Your task to perform on an android device: turn pop-ups off in chrome Image 0: 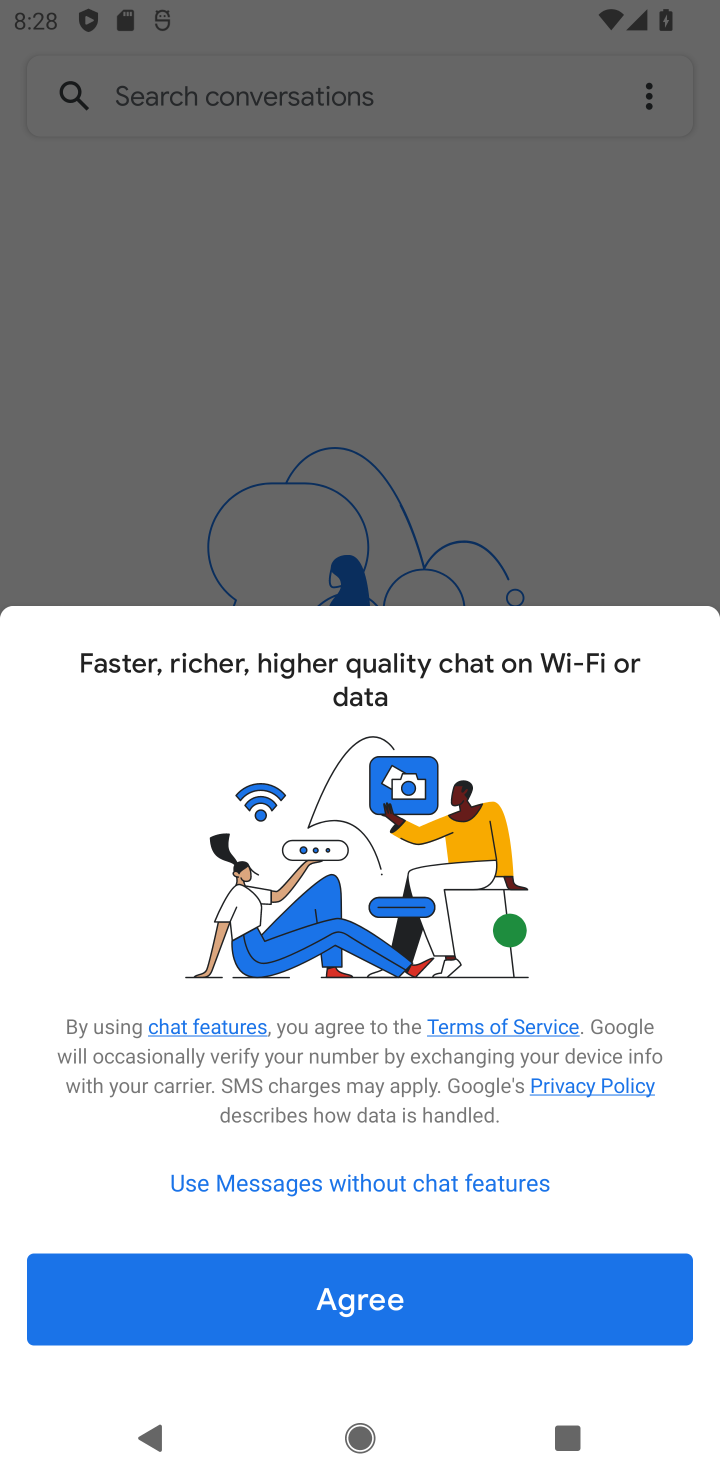
Step 0: press home button
Your task to perform on an android device: turn pop-ups off in chrome Image 1: 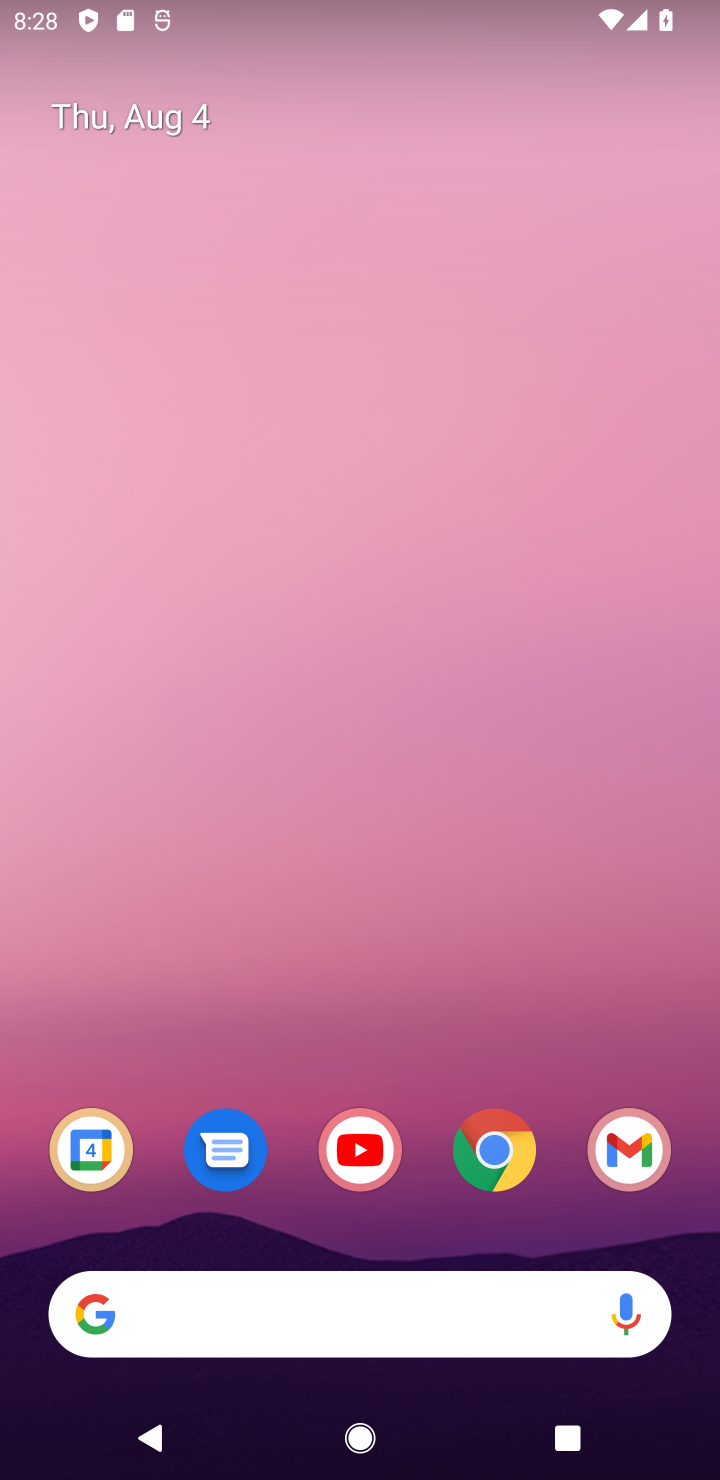
Step 1: click (470, 1158)
Your task to perform on an android device: turn pop-ups off in chrome Image 2: 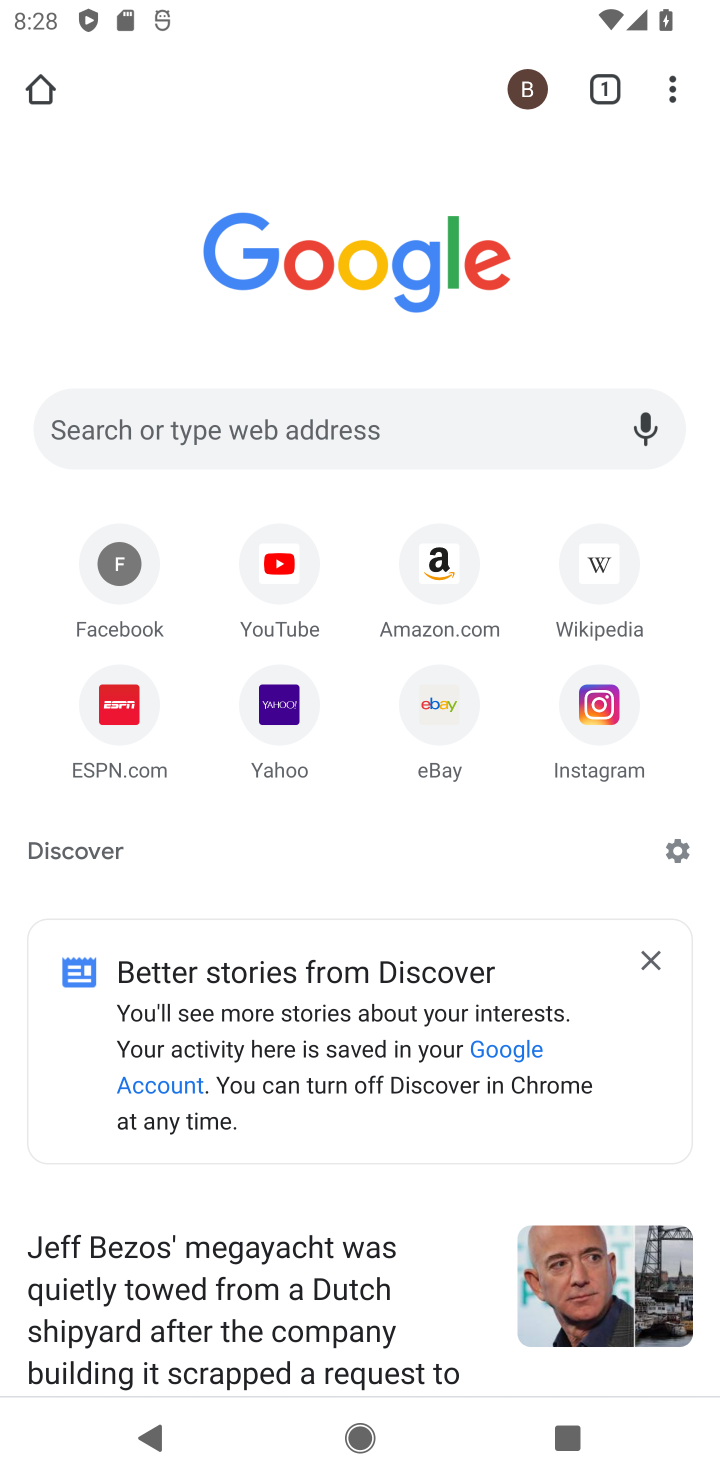
Step 2: drag from (668, 82) to (325, 784)
Your task to perform on an android device: turn pop-ups off in chrome Image 3: 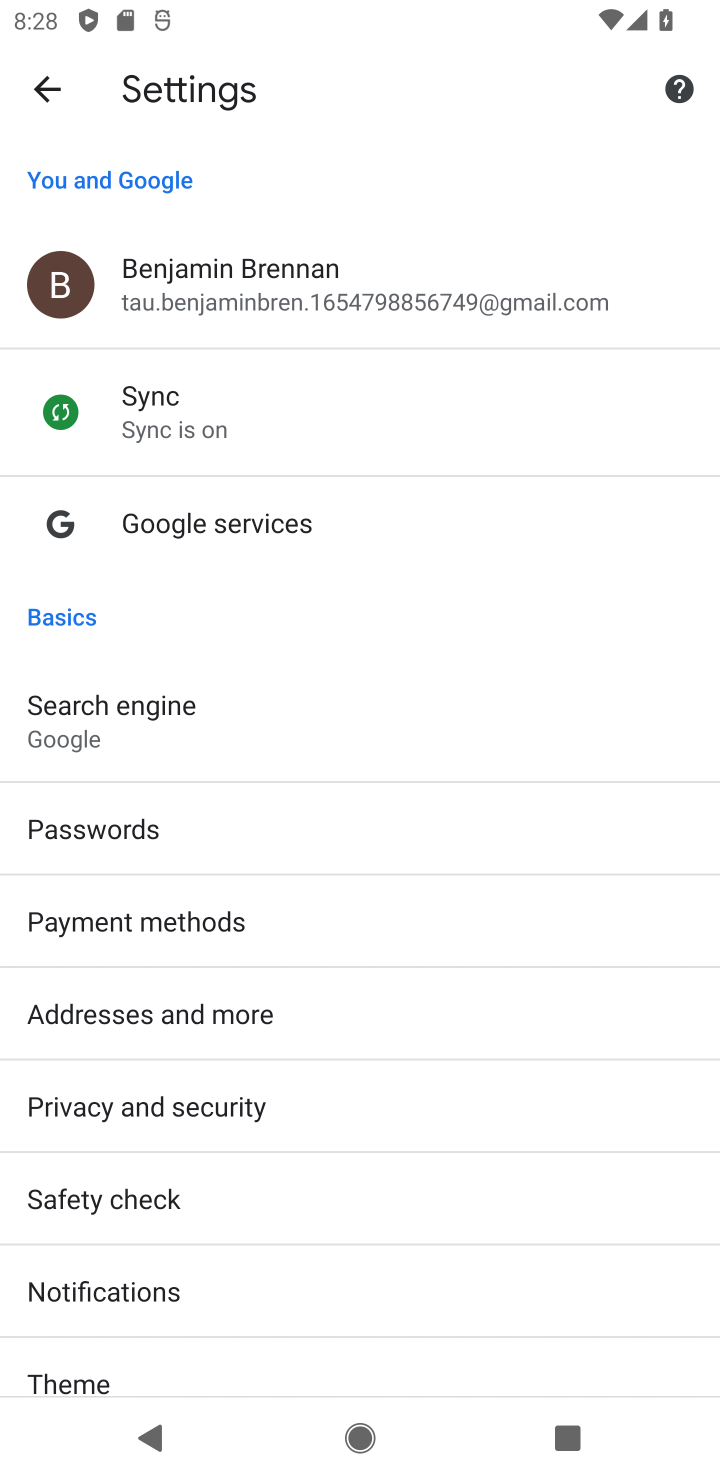
Step 3: drag from (121, 1286) to (97, 476)
Your task to perform on an android device: turn pop-ups off in chrome Image 4: 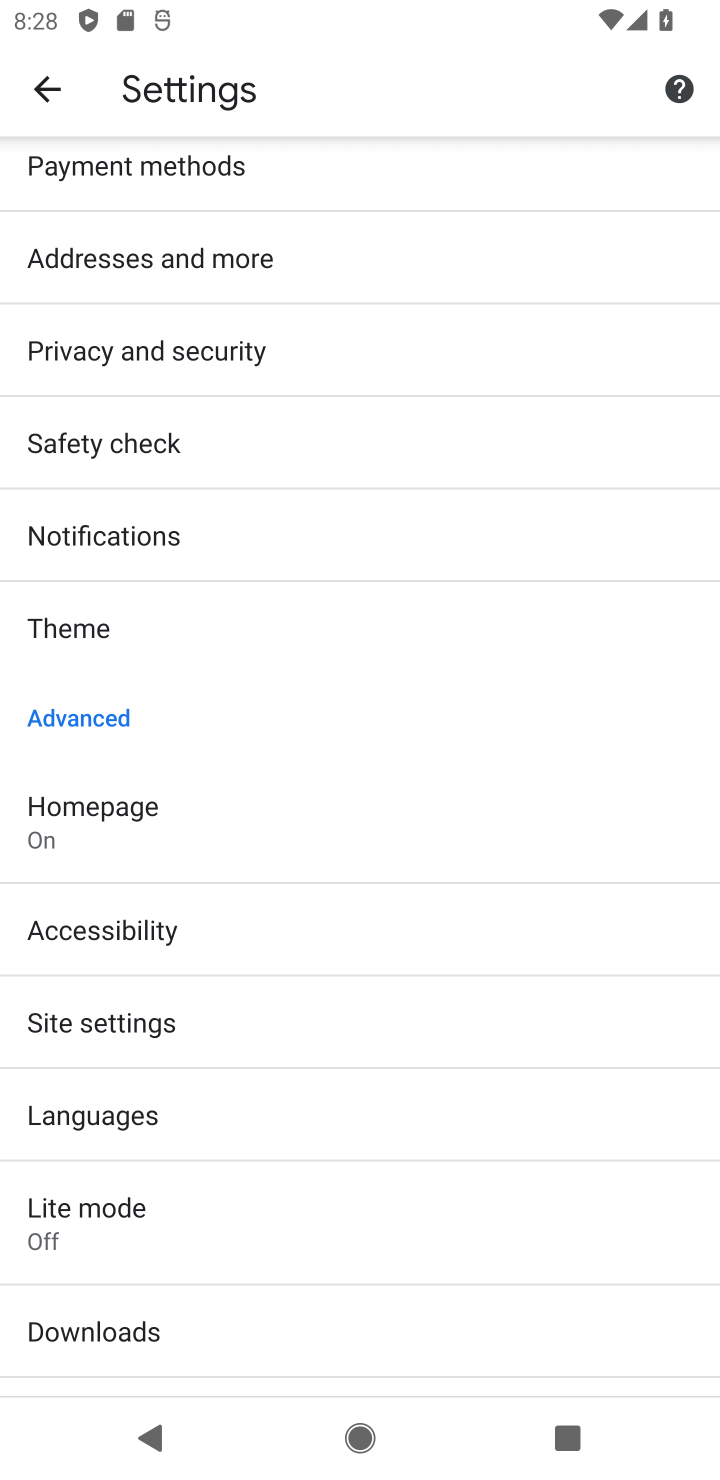
Step 4: click (87, 1031)
Your task to perform on an android device: turn pop-ups off in chrome Image 5: 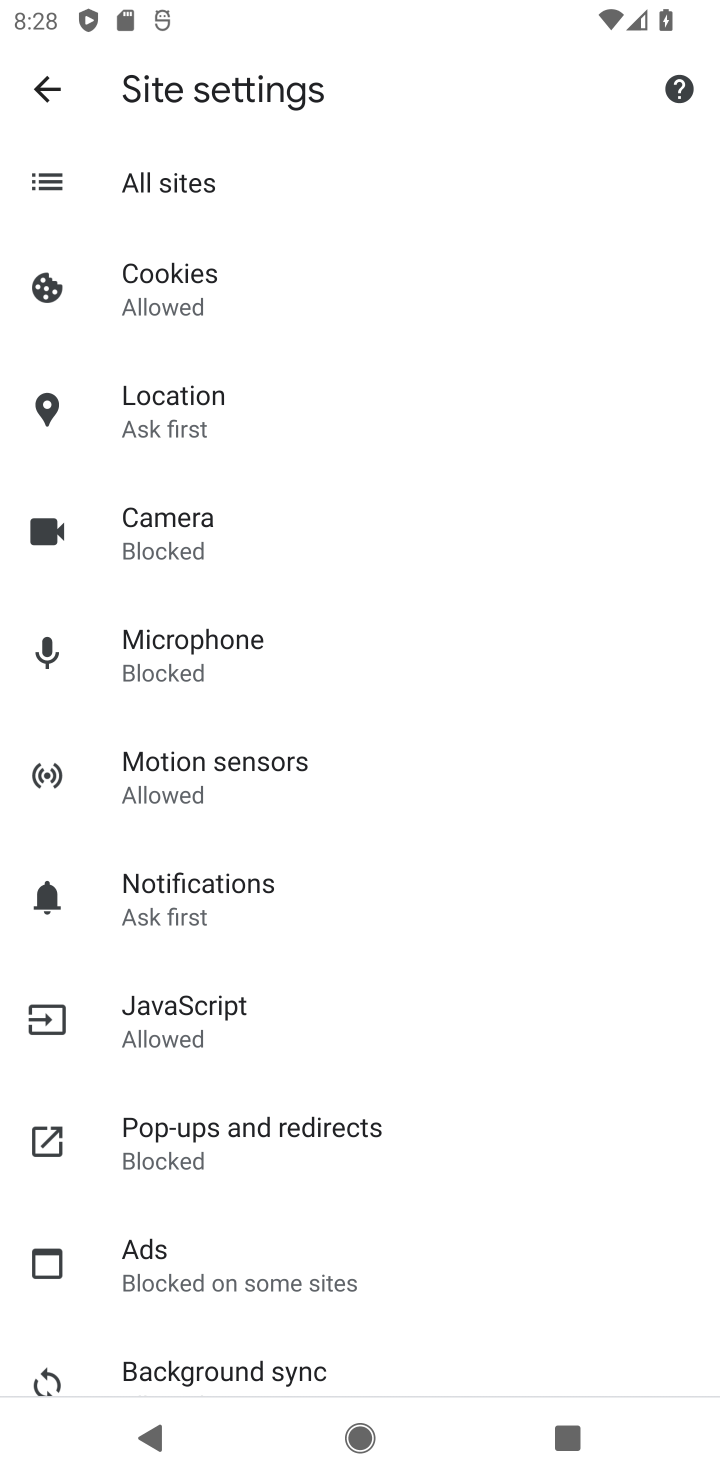
Step 5: click (290, 1149)
Your task to perform on an android device: turn pop-ups off in chrome Image 6: 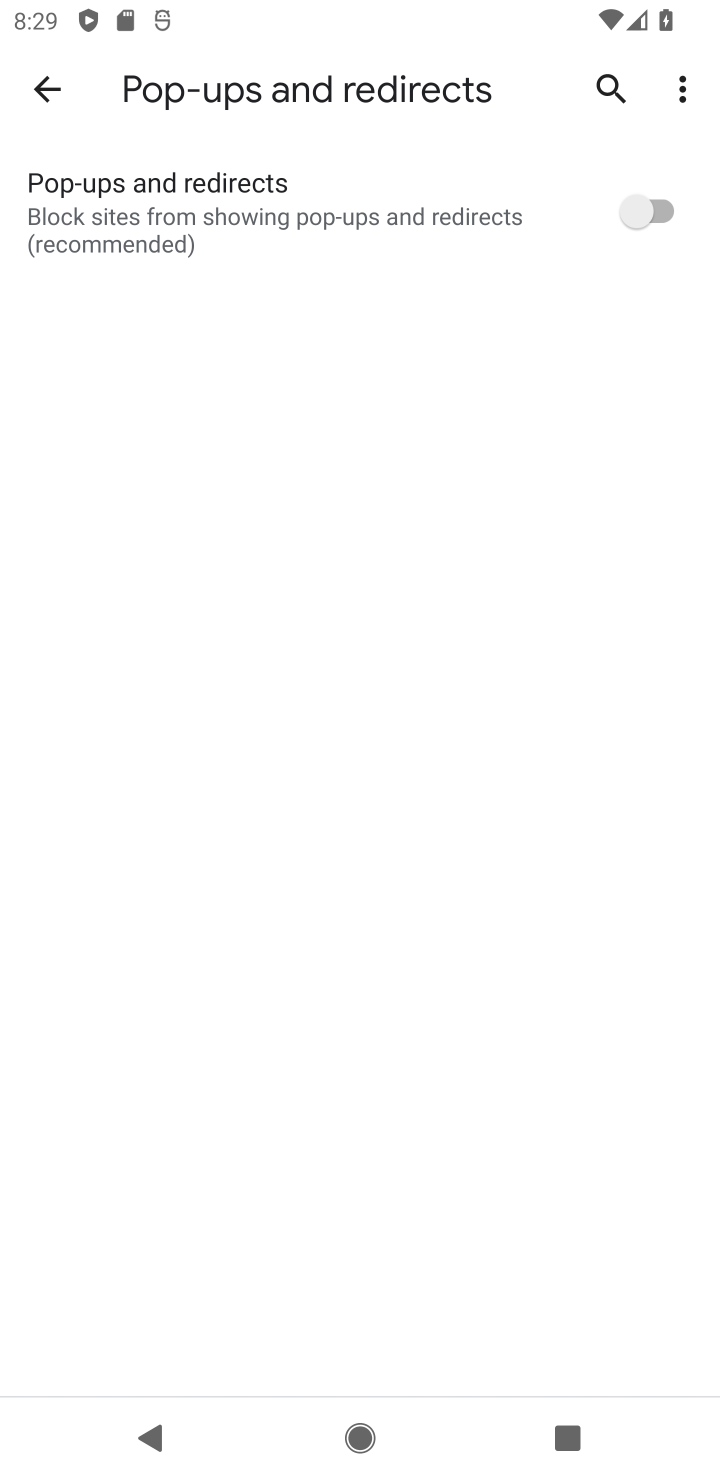
Step 6: task complete